Your task to perform on an android device: open app "HBO Max: Stream TV & Movies" (install if not already installed) Image 0: 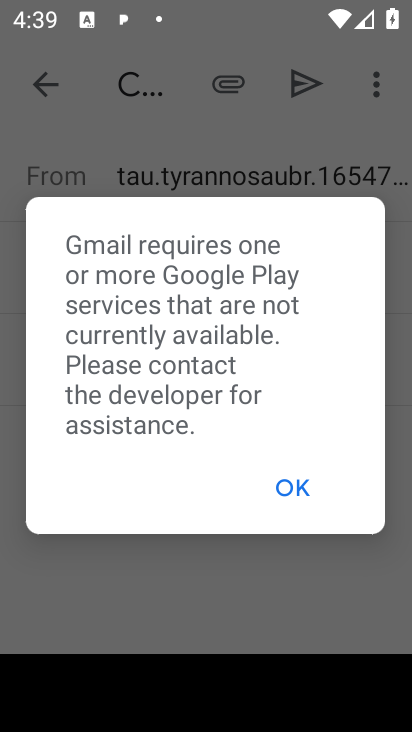
Step 0: press home button
Your task to perform on an android device: open app "HBO Max: Stream TV & Movies" (install if not already installed) Image 1: 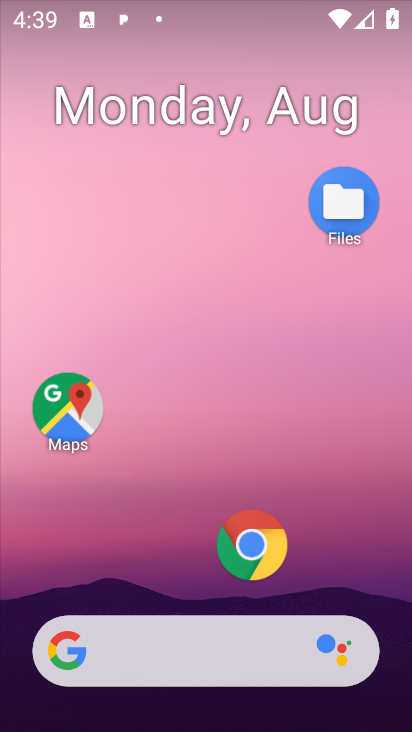
Step 1: drag from (115, 456) to (230, 32)
Your task to perform on an android device: open app "HBO Max: Stream TV & Movies" (install if not already installed) Image 2: 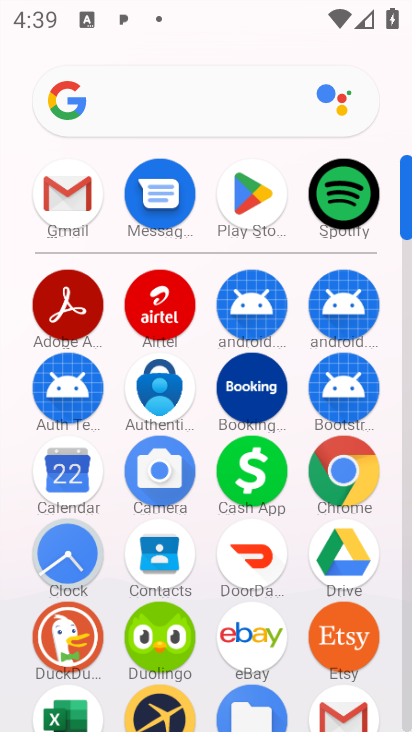
Step 2: click (260, 197)
Your task to perform on an android device: open app "HBO Max: Stream TV & Movies" (install if not already installed) Image 3: 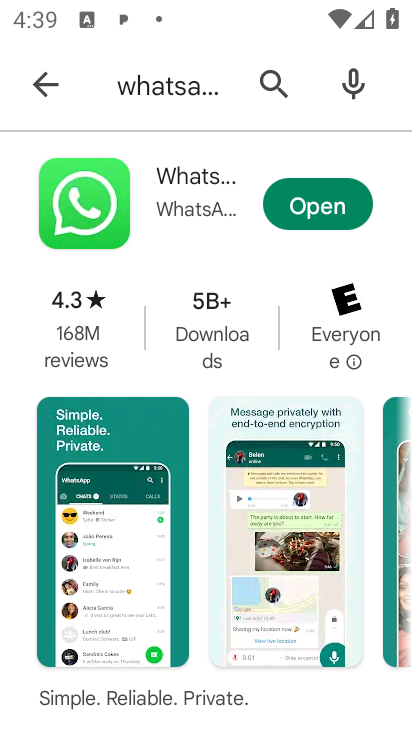
Step 3: click (265, 95)
Your task to perform on an android device: open app "HBO Max: Stream TV & Movies" (install if not already installed) Image 4: 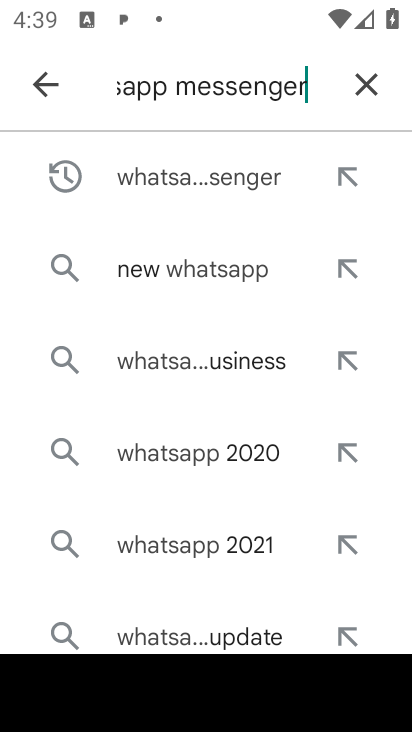
Step 4: click (373, 82)
Your task to perform on an android device: open app "HBO Max: Stream TV & Movies" (install if not already installed) Image 5: 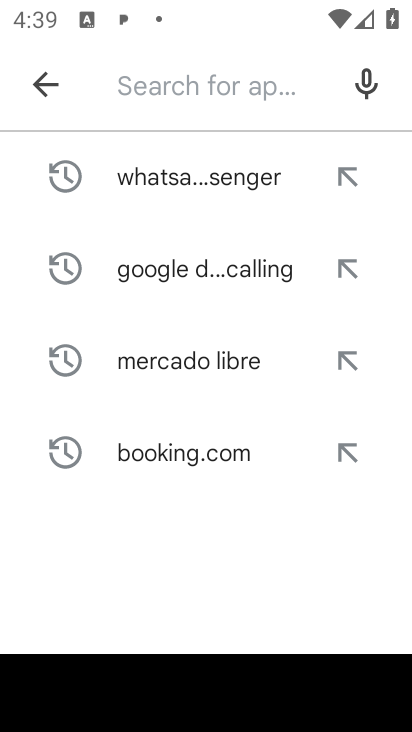
Step 5: click (175, 81)
Your task to perform on an android device: open app "HBO Max: Stream TV & Movies" (install if not already installed) Image 6: 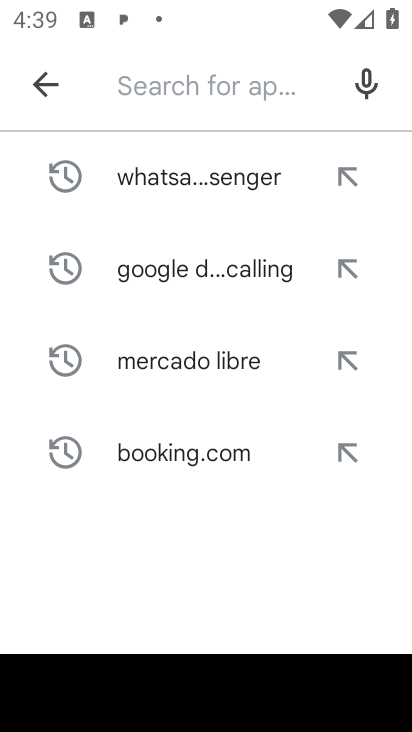
Step 6: type "hbo"
Your task to perform on an android device: open app "HBO Max: Stream TV & Movies" (install if not already installed) Image 7: 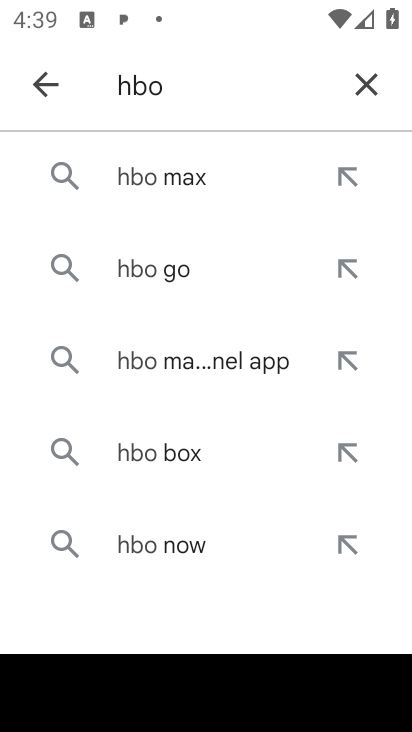
Step 7: click (129, 172)
Your task to perform on an android device: open app "HBO Max: Stream TV & Movies" (install if not already installed) Image 8: 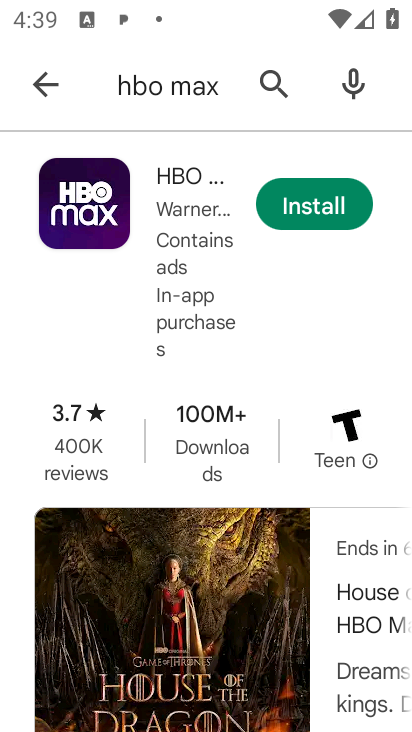
Step 8: click (310, 208)
Your task to perform on an android device: open app "HBO Max: Stream TV & Movies" (install if not already installed) Image 9: 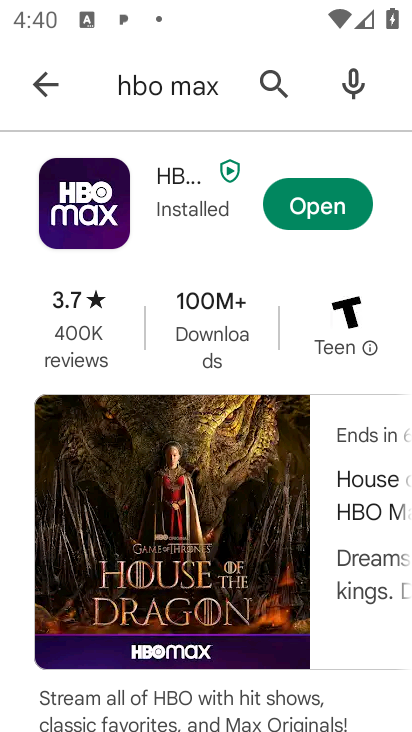
Step 9: click (320, 211)
Your task to perform on an android device: open app "HBO Max: Stream TV & Movies" (install if not already installed) Image 10: 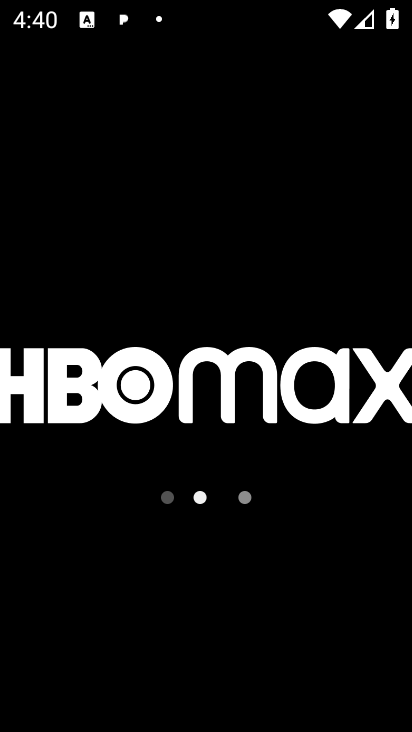
Step 10: task complete